Your task to perform on an android device: delete a single message in the gmail app Image 0: 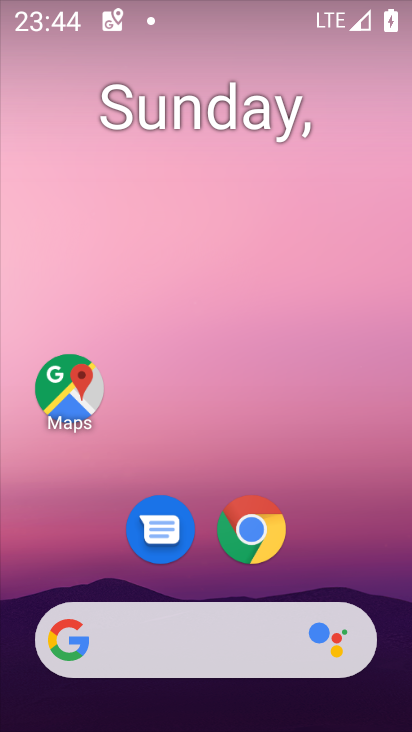
Step 0: drag from (346, 555) to (252, 84)
Your task to perform on an android device: delete a single message in the gmail app Image 1: 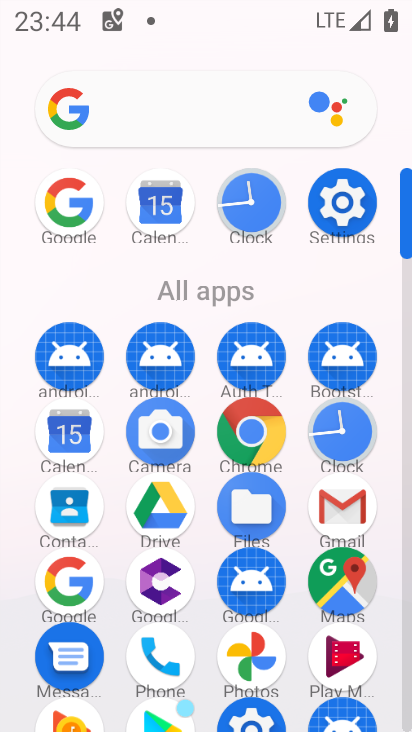
Step 1: click (343, 510)
Your task to perform on an android device: delete a single message in the gmail app Image 2: 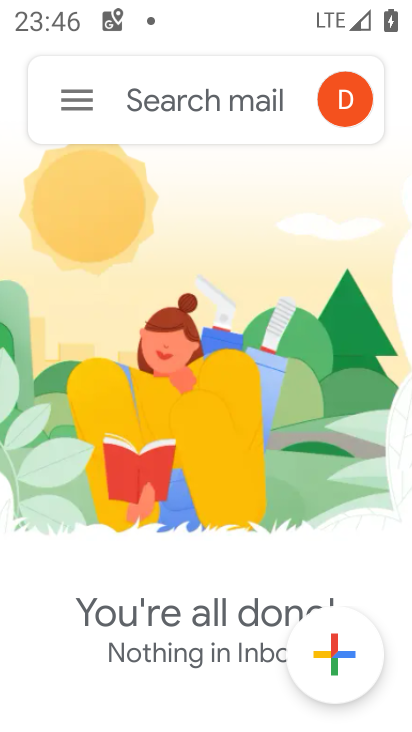
Step 2: click (67, 106)
Your task to perform on an android device: delete a single message in the gmail app Image 3: 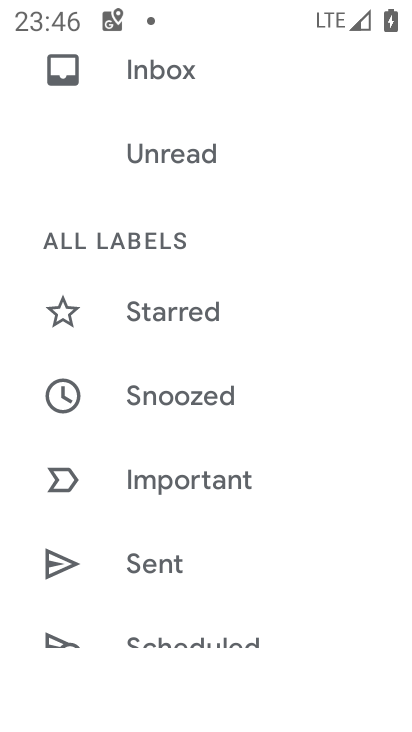
Step 3: click (154, 71)
Your task to perform on an android device: delete a single message in the gmail app Image 4: 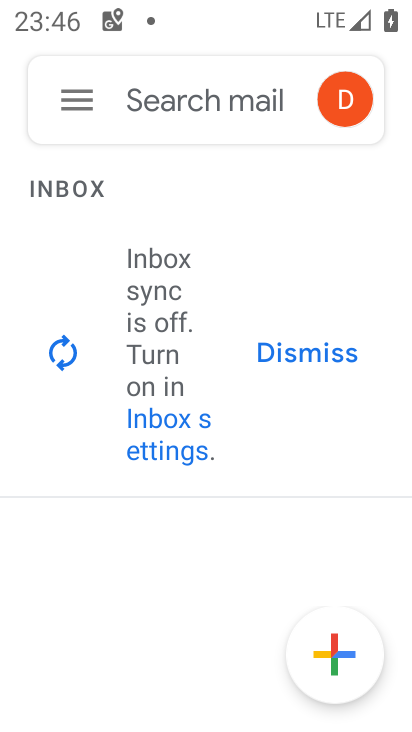
Step 4: click (70, 101)
Your task to perform on an android device: delete a single message in the gmail app Image 5: 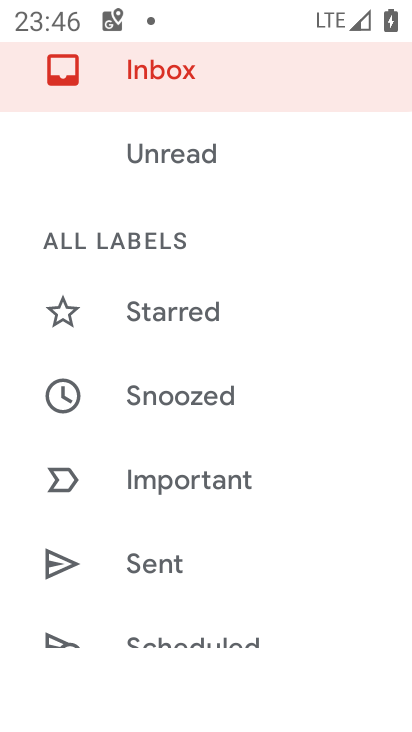
Step 5: drag from (193, 540) to (217, 389)
Your task to perform on an android device: delete a single message in the gmail app Image 6: 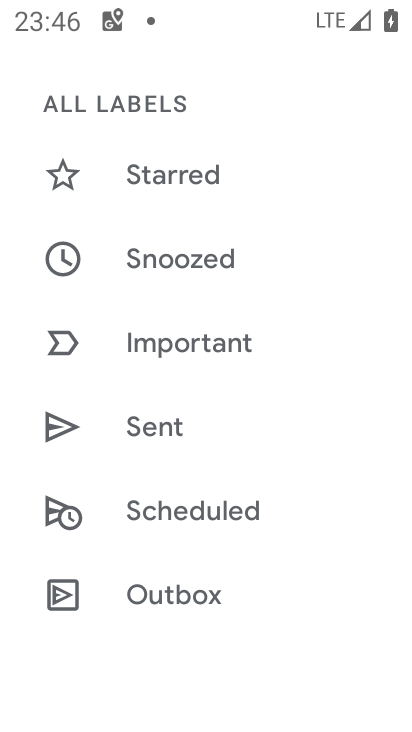
Step 6: drag from (205, 591) to (200, 406)
Your task to perform on an android device: delete a single message in the gmail app Image 7: 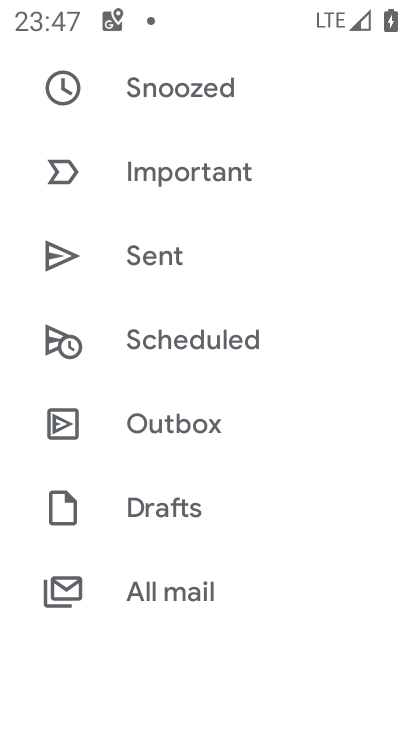
Step 7: click (192, 582)
Your task to perform on an android device: delete a single message in the gmail app Image 8: 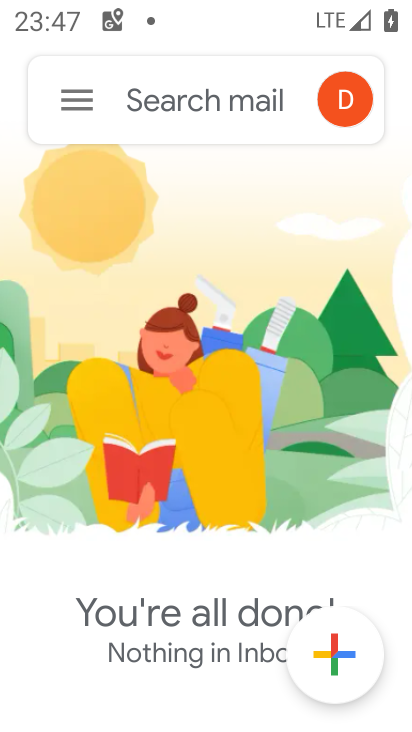
Step 8: task complete